Your task to perform on an android device: clear history in the chrome app Image 0: 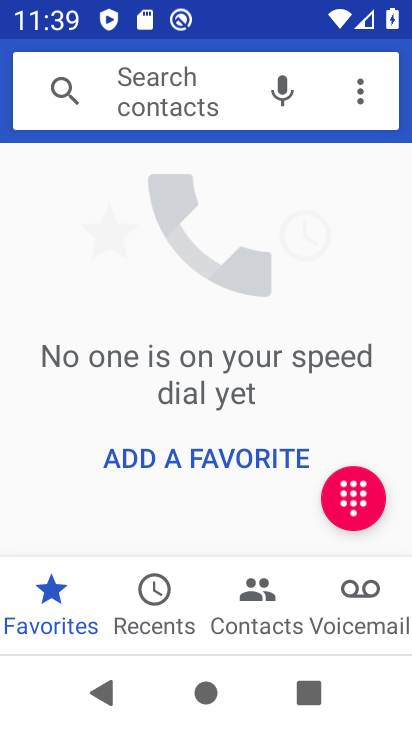
Step 0: press home button
Your task to perform on an android device: clear history in the chrome app Image 1: 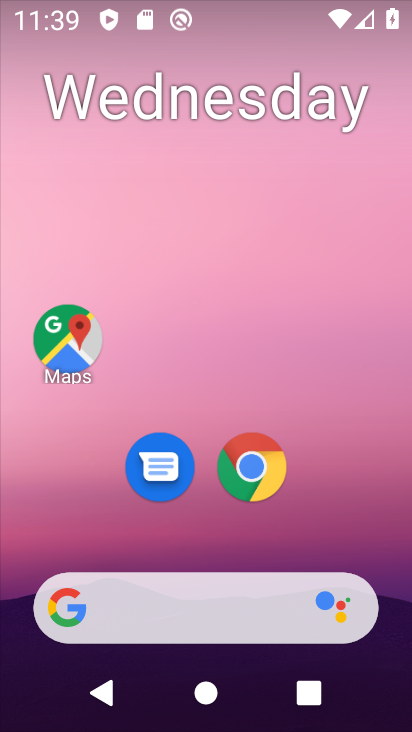
Step 1: click (259, 485)
Your task to perform on an android device: clear history in the chrome app Image 2: 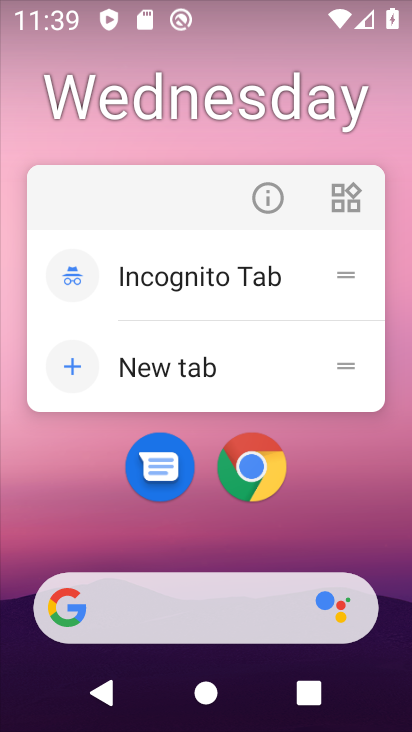
Step 2: click (262, 460)
Your task to perform on an android device: clear history in the chrome app Image 3: 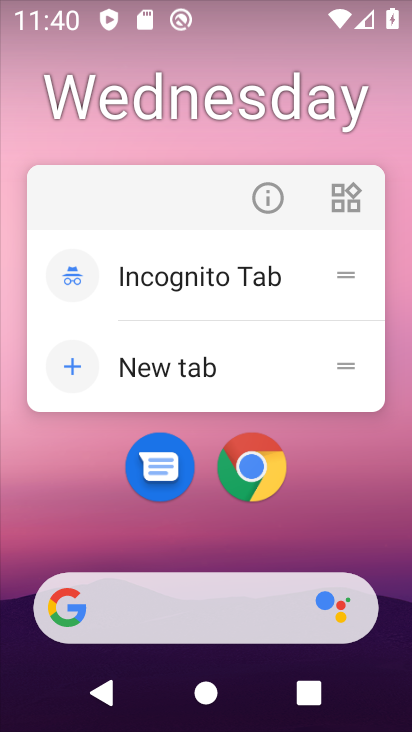
Step 3: click (254, 465)
Your task to perform on an android device: clear history in the chrome app Image 4: 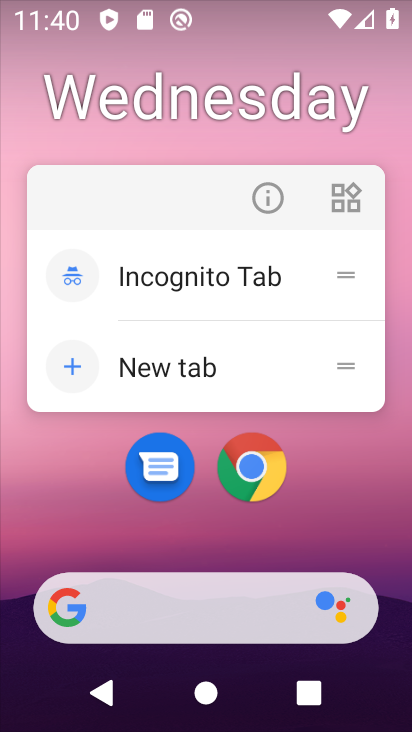
Step 4: click (252, 474)
Your task to perform on an android device: clear history in the chrome app Image 5: 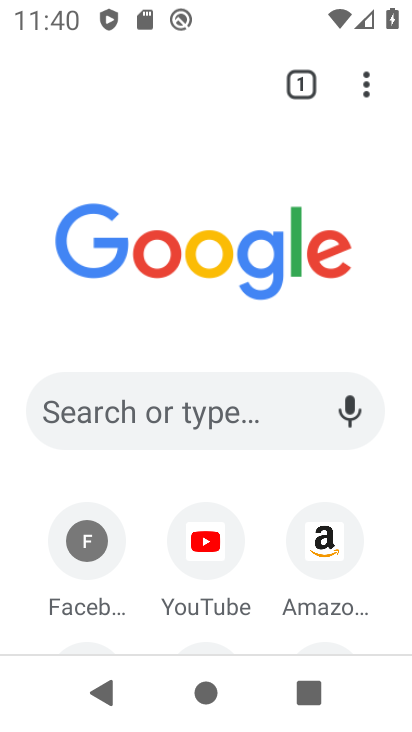
Step 5: task complete